Your task to perform on an android device: Open Google Chrome Image 0: 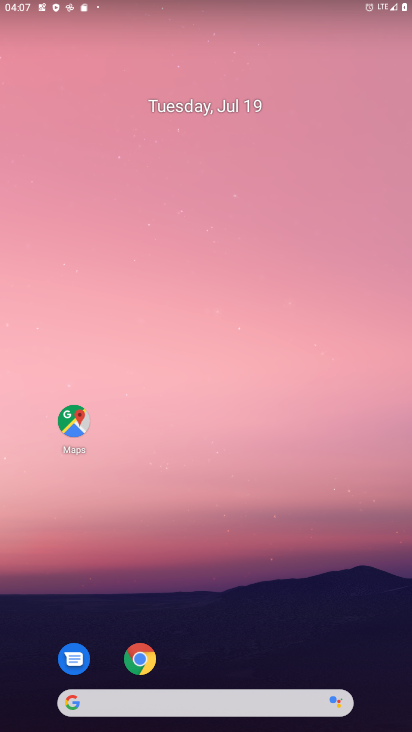
Step 0: press home button
Your task to perform on an android device: Open Google Chrome Image 1: 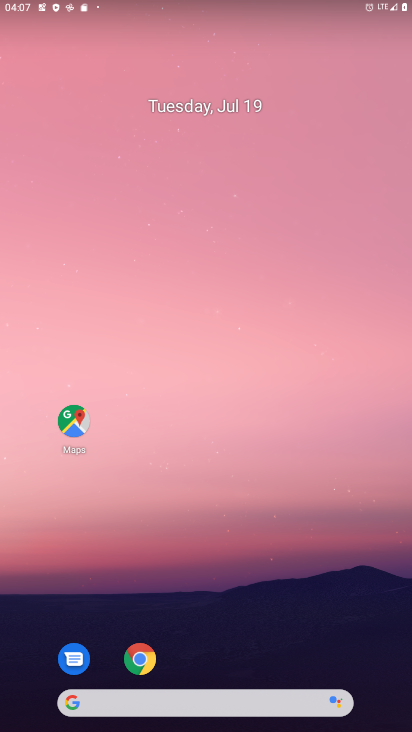
Step 1: click (129, 677)
Your task to perform on an android device: Open Google Chrome Image 2: 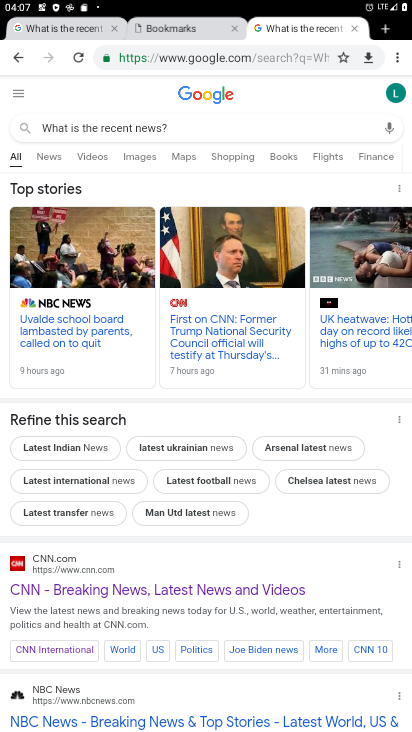
Step 2: task complete